Your task to perform on an android device: Open the web browser Image 0: 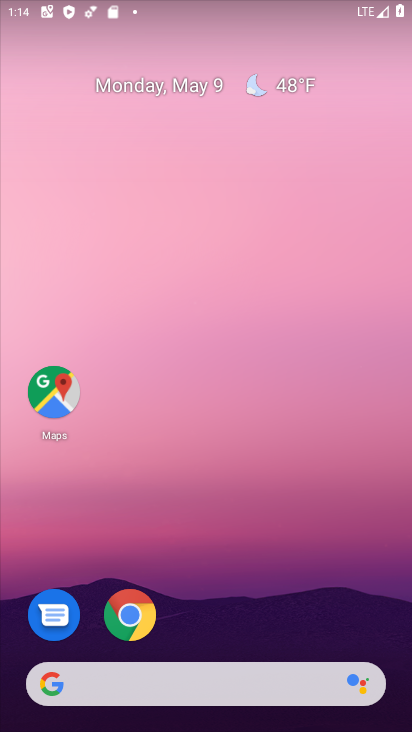
Step 0: click (127, 611)
Your task to perform on an android device: Open the web browser Image 1: 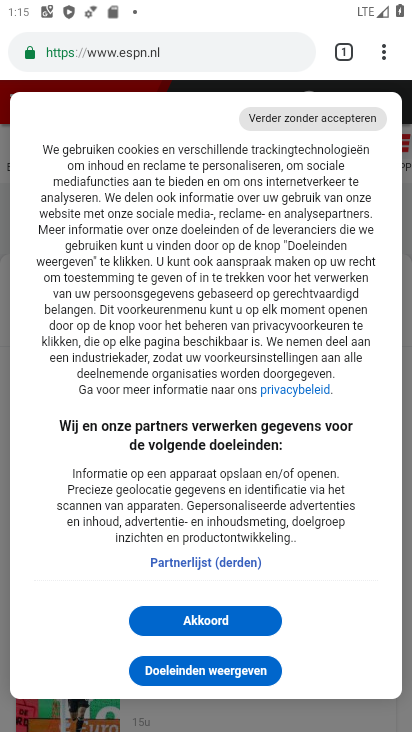
Step 1: task complete